Your task to perform on an android device: Open Chrome and go to settings Image 0: 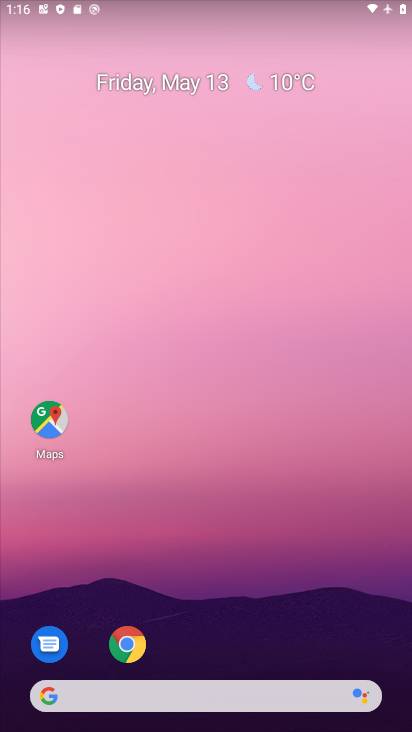
Step 0: click (127, 643)
Your task to perform on an android device: Open Chrome and go to settings Image 1: 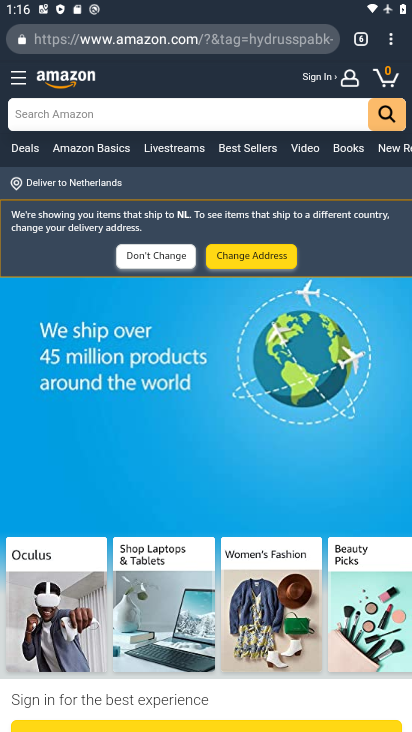
Step 1: click (393, 46)
Your task to perform on an android device: Open Chrome and go to settings Image 2: 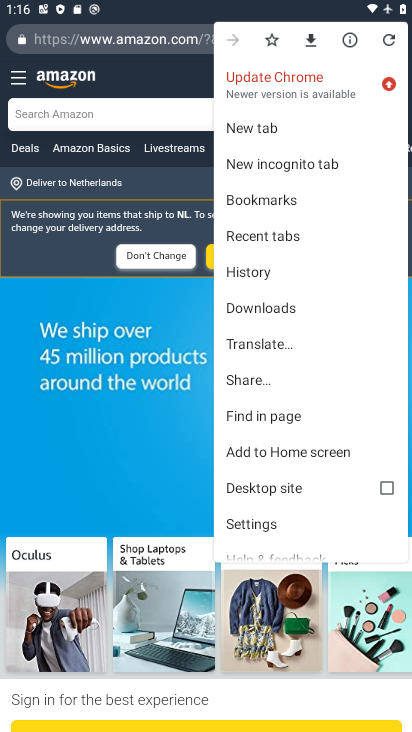
Step 2: click (257, 522)
Your task to perform on an android device: Open Chrome and go to settings Image 3: 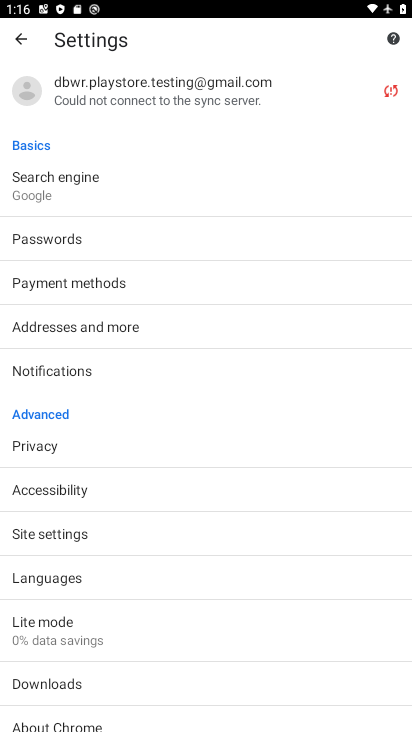
Step 3: task complete